Your task to perform on an android device: open a bookmark in the chrome app Image 0: 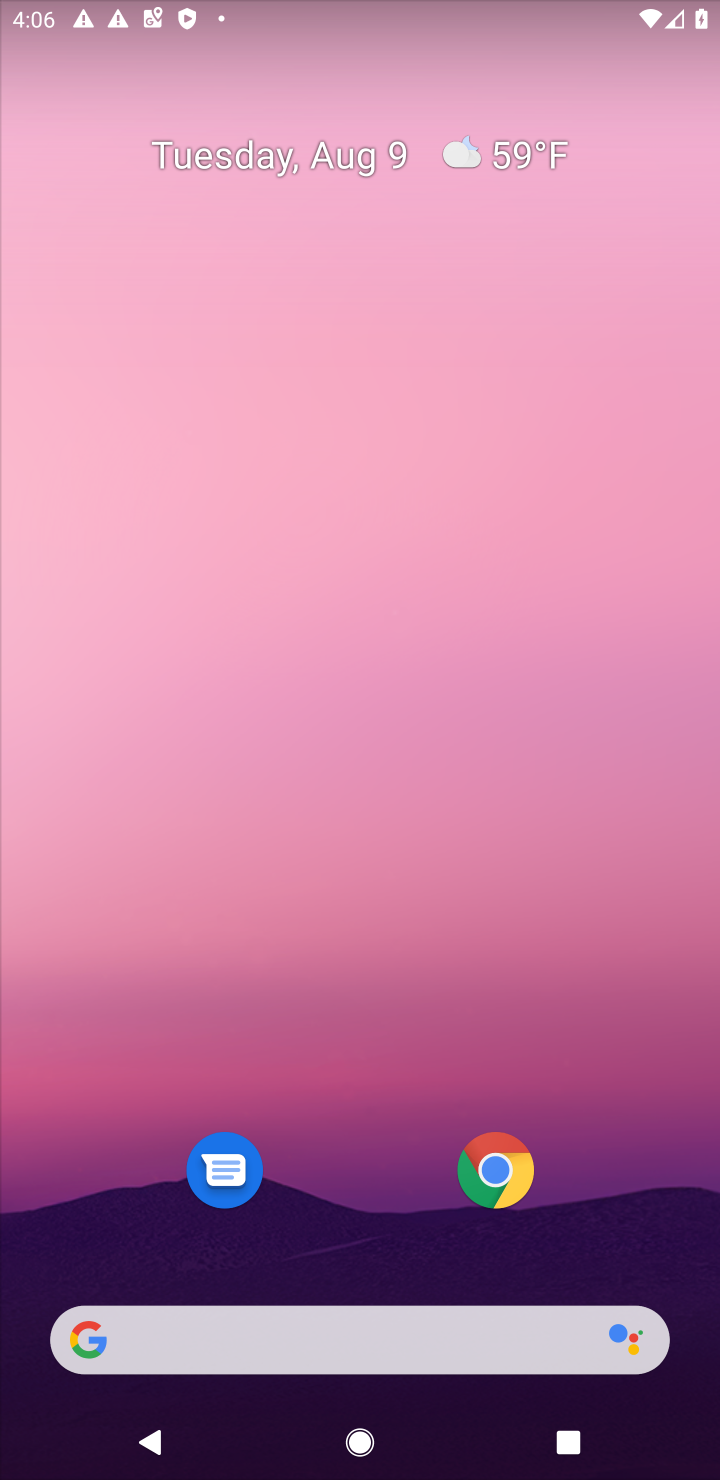
Step 0: click (477, 1168)
Your task to perform on an android device: open a bookmark in the chrome app Image 1: 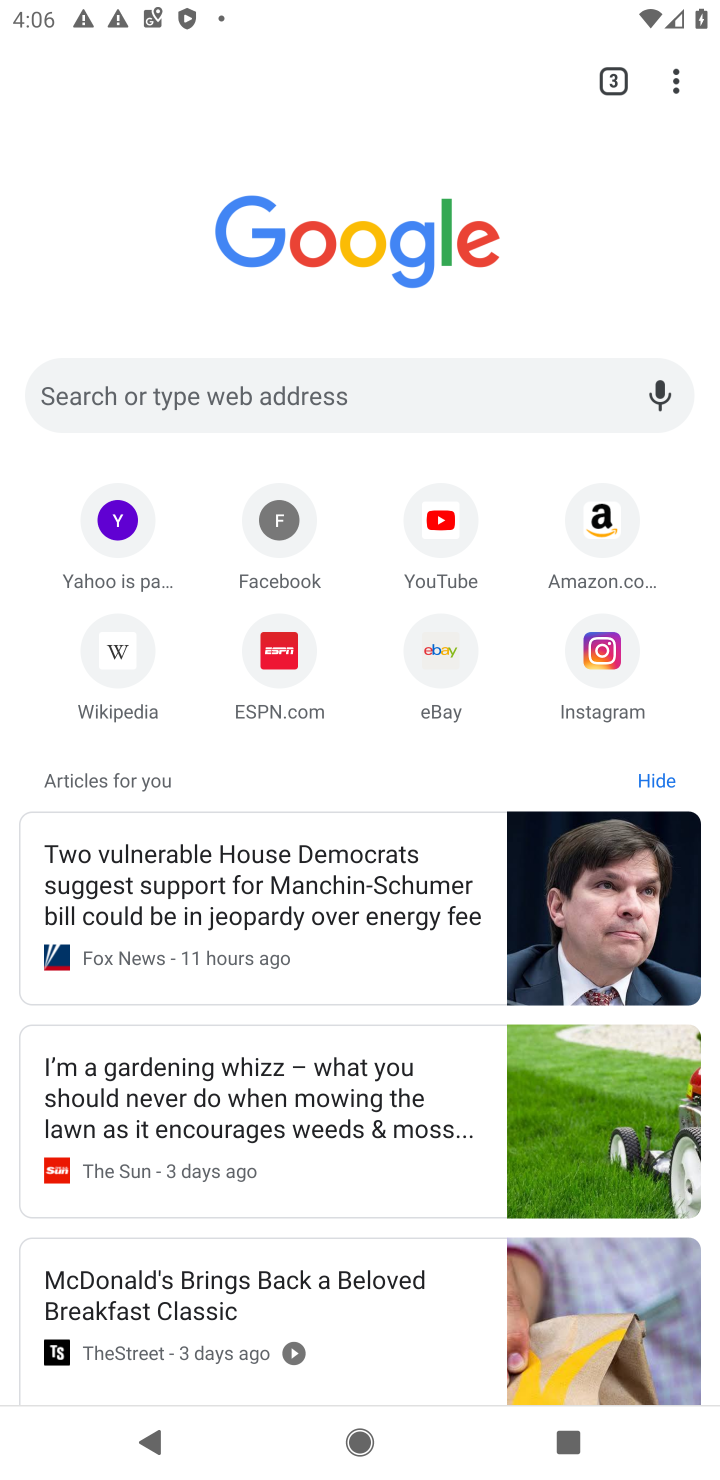
Step 1: task complete